Your task to perform on an android device: Open Android settings Image 0: 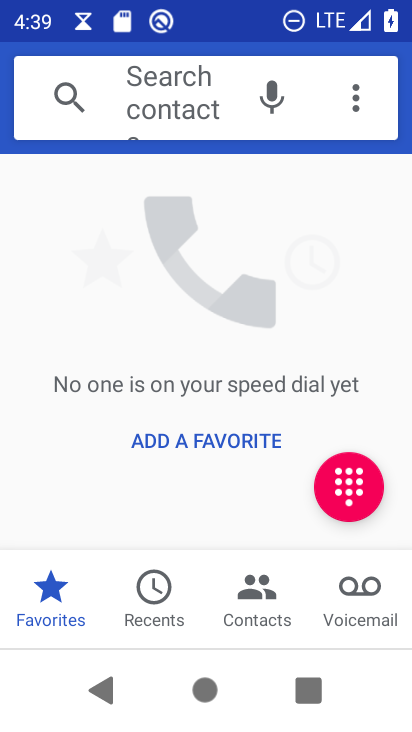
Step 0: press home button
Your task to perform on an android device: Open Android settings Image 1: 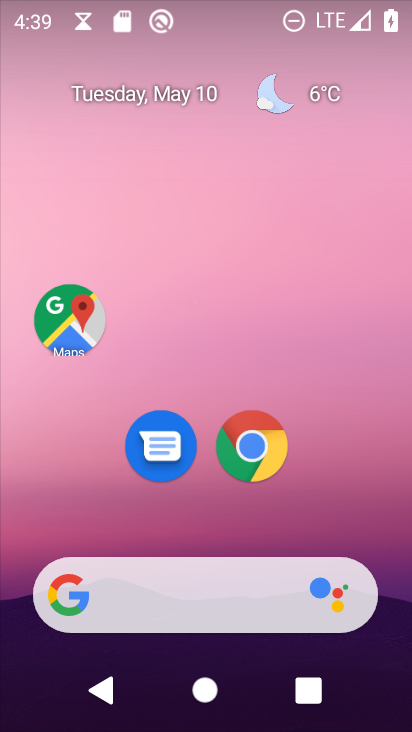
Step 1: drag from (303, 515) to (189, 108)
Your task to perform on an android device: Open Android settings Image 2: 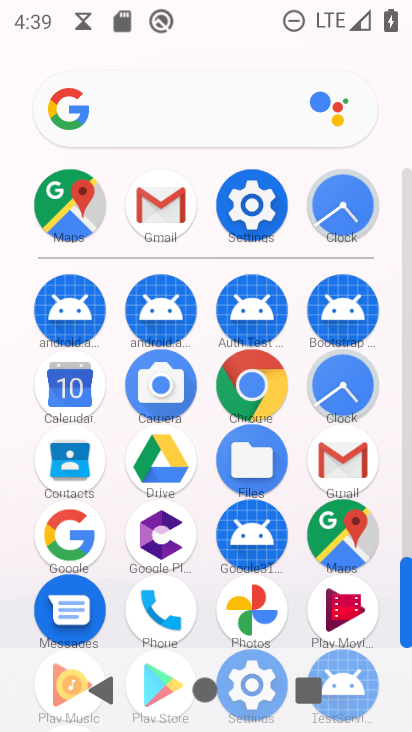
Step 2: click (239, 185)
Your task to perform on an android device: Open Android settings Image 3: 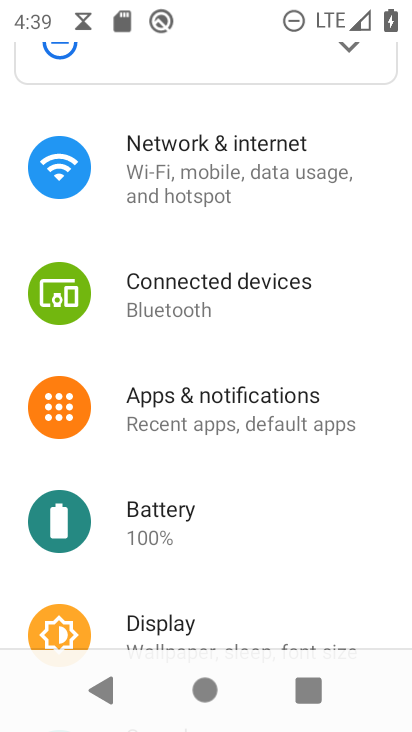
Step 3: drag from (257, 609) to (247, 42)
Your task to perform on an android device: Open Android settings Image 4: 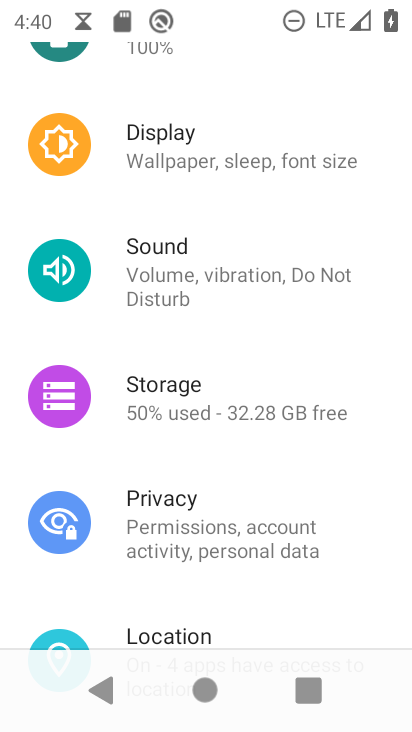
Step 4: drag from (246, 487) to (178, 109)
Your task to perform on an android device: Open Android settings Image 5: 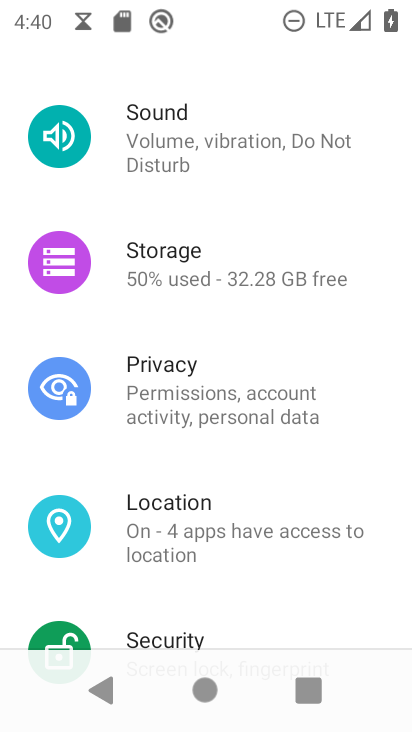
Step 5: drag from (213, 612) to (226, 205)
Your task to perform on an android device: Open Android settings Image 6: 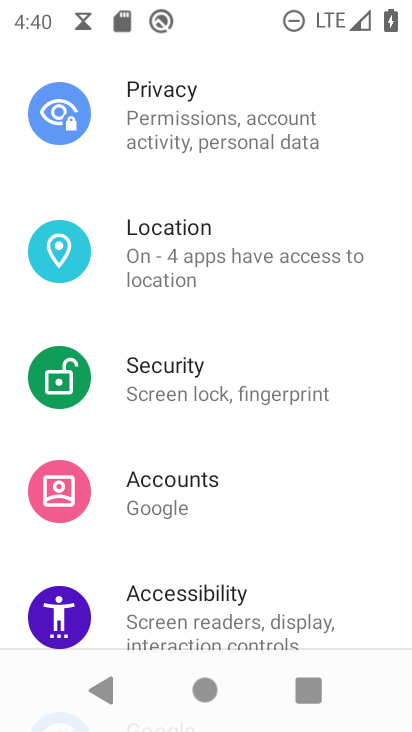
Step 6: drag from (236, 582) to (206, 296)
Your task to perform on an android device: Open Android settings Image 7: 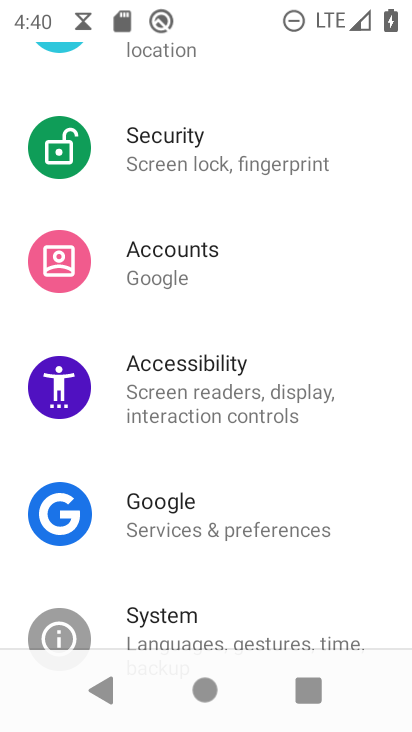
Step 7: drag from (230, 593) to (231, 209)
Your task to perform on an android device: Open Android settings Image 8: 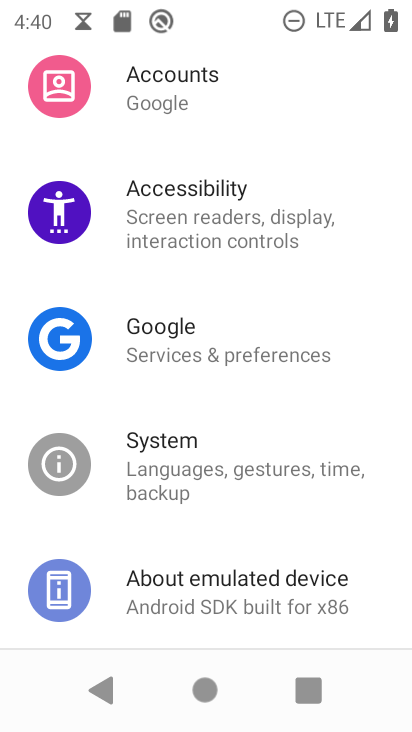
Step 8: click (182, 589)
Your task to perform on an android device: Open Android settings Image 9: 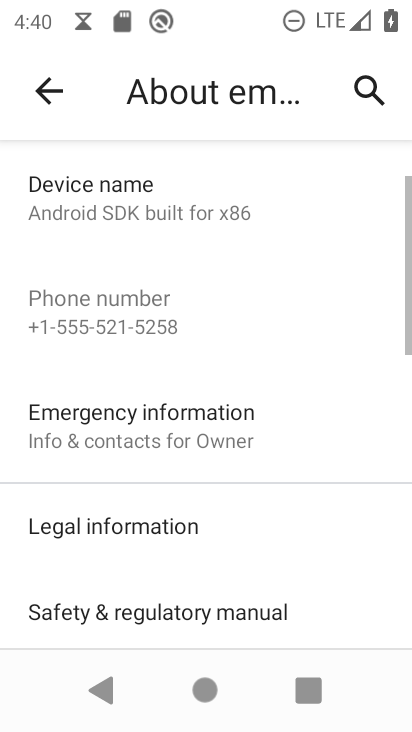
Step 9: drag from (225, 558) to (194, 101)
Your task to perform on an android device: Open Android settings Image 10: 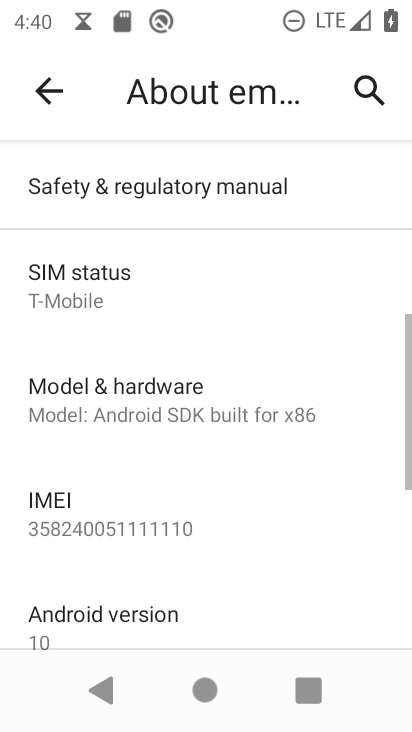
Step 10: click (159, 611)
Your task to perform on an android device: Open Android settings Image 11: 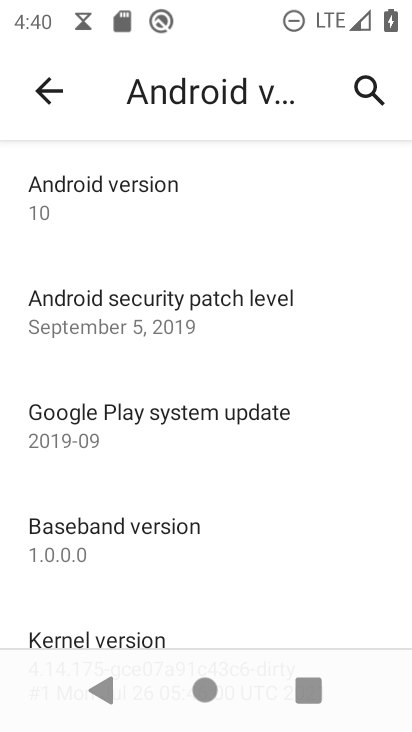
Step 11: task complete